Your task to perform on an android device: What's the weather going to be tomorrow? Image 0: 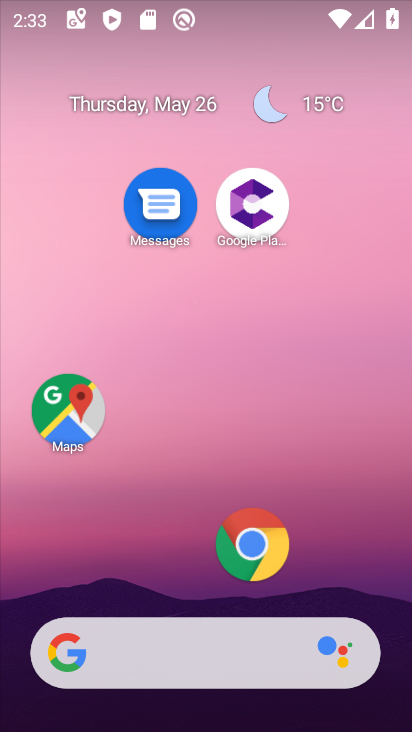
Step 0: click (330, 97)
Your task to perform on an android device: What's the weather going to be tomorrow? Image 1: 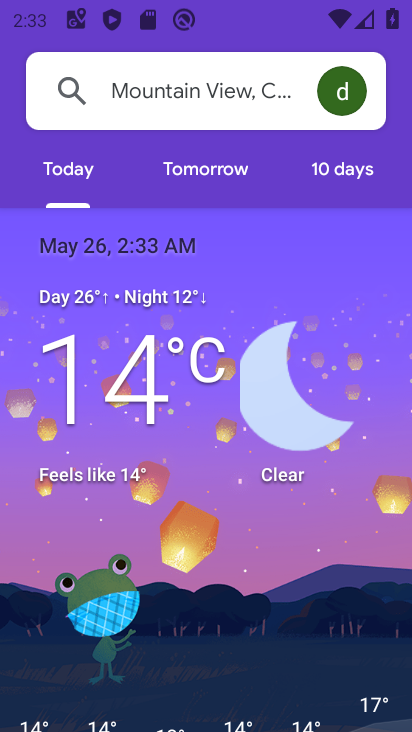
Step 1: click (228, 175)
Your task to perform on an android device: What's the weather going to be tomorrow? Image 2: 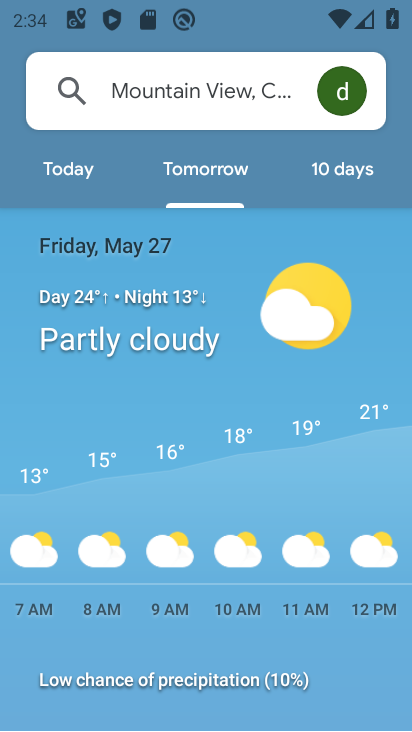
Step 2: task complete